Your task to perform on an android device: Search for a new water heater on Home Depot Image 0: 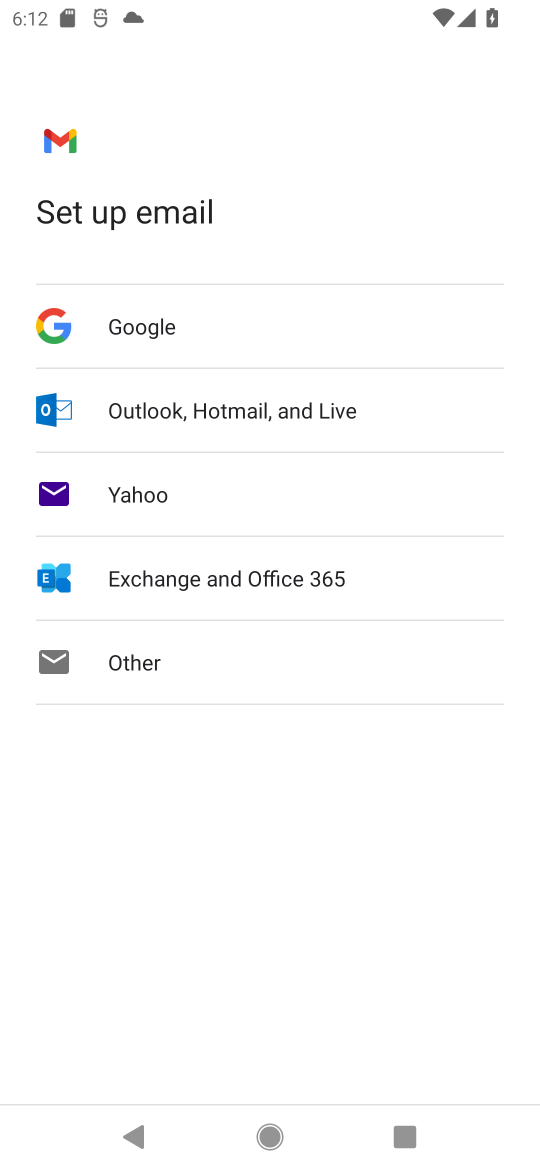
Step 0: press home button
Your task to perform on an android device: Search for a new water heater on Home Depot Image 1: 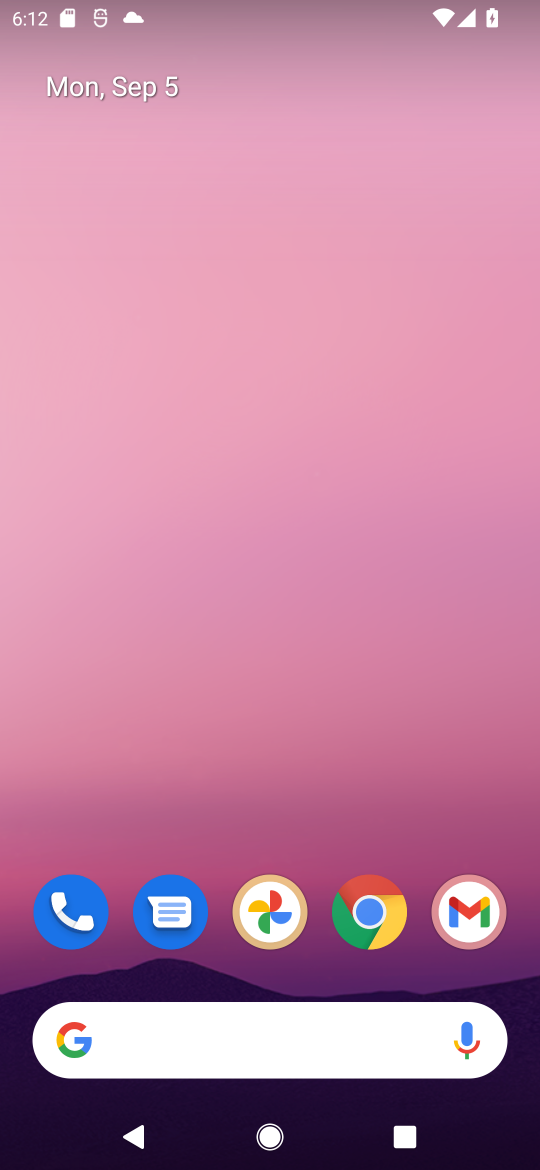
Step 1: click (369, 913)
Your task to perform on an android device: Search for a new water heater on Home Depot Image 2: 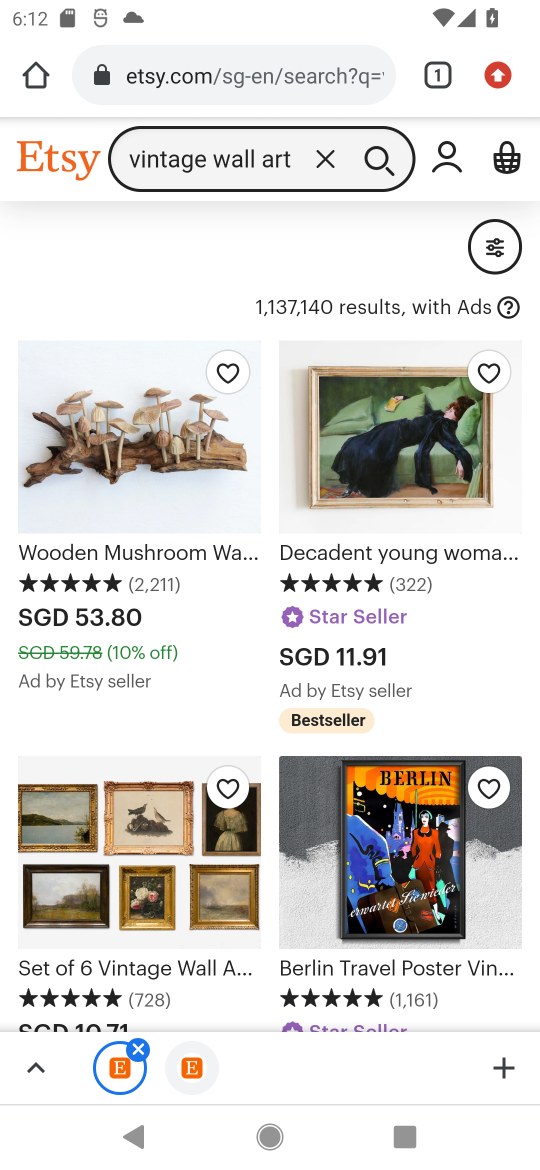
Step 2: click (180, 79)
Your task to perform on an android device: Search for a new water heater on Home Depot Image 3: 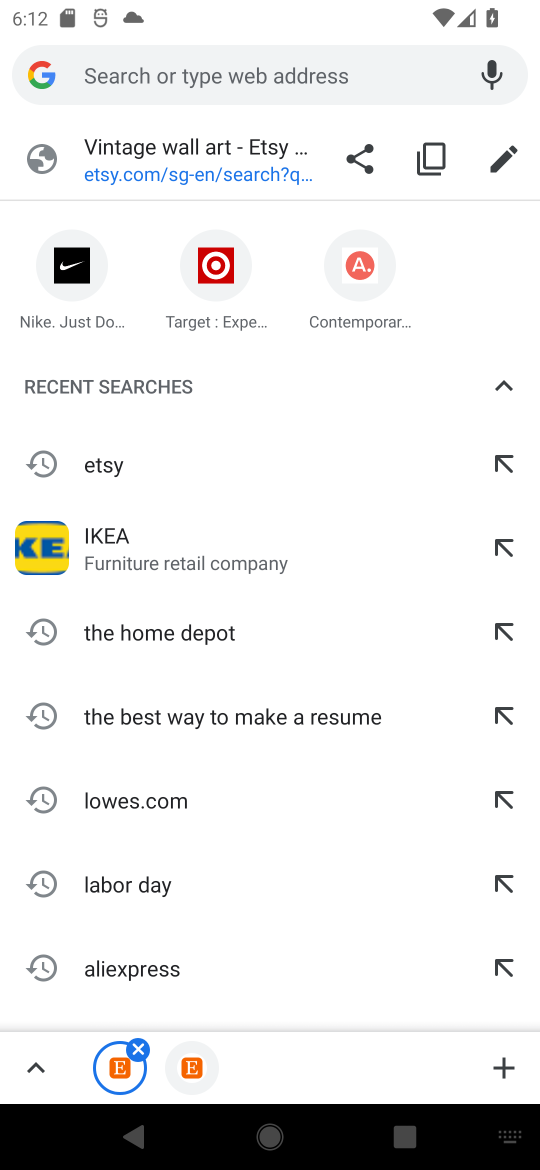
Step 3: type "the home depot"
Your task to perform on an android device: Search for a new water heater on Home Depot Image 4: 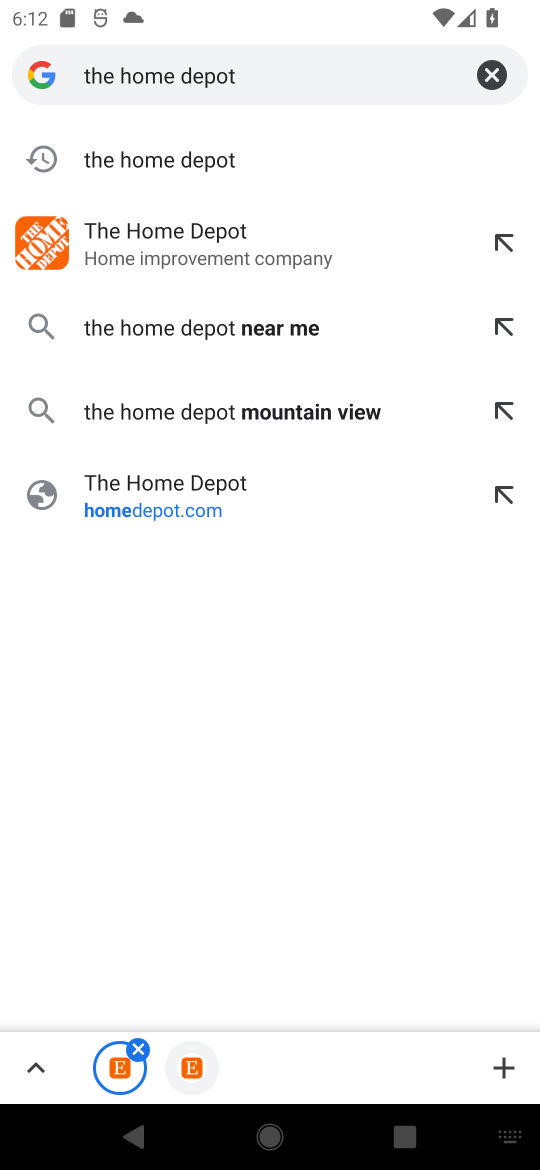
Step 4: click (249, 220)
Your task to perform on an android device: Search for a new water heater on Home Depot Image 5: 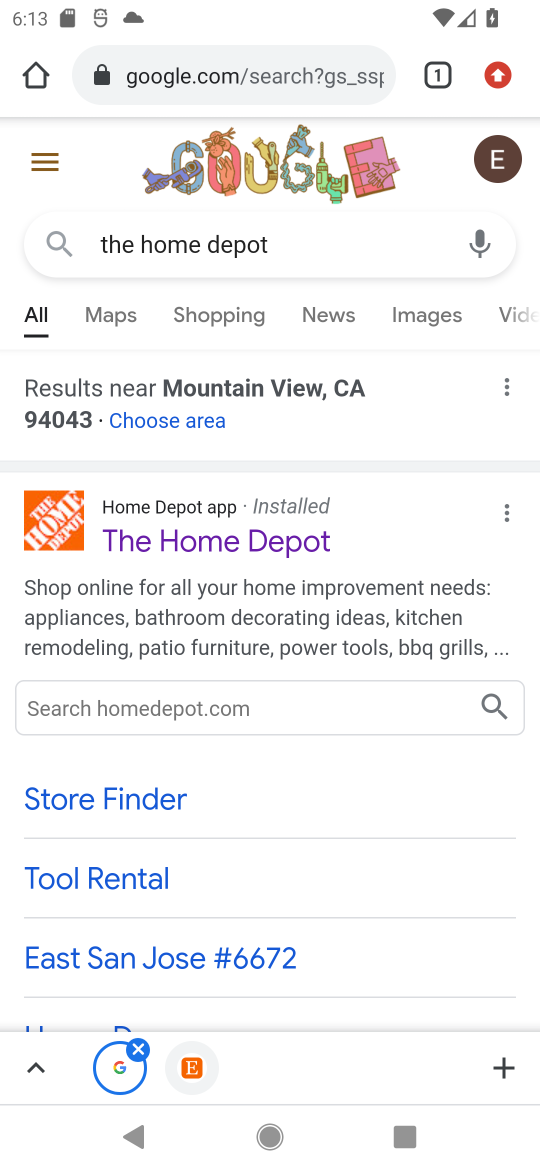
Step 5: click (221, 541)
Your task to perform on an android device: Search for a new water heater on Home Depot Image 6: 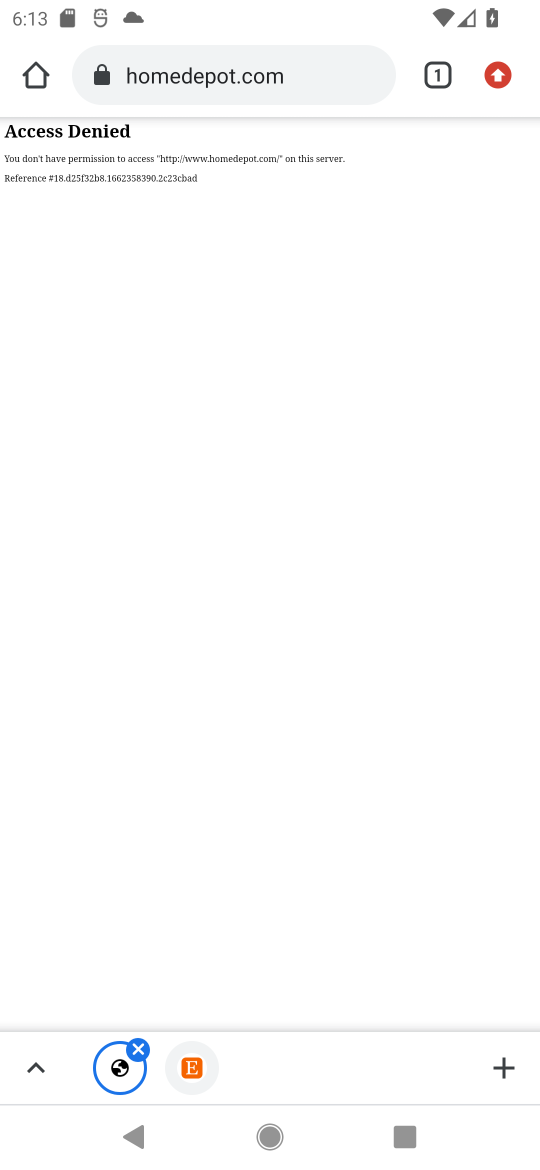
Step 6: task complete